Your task to perform on an android device: check google app version Image 0: 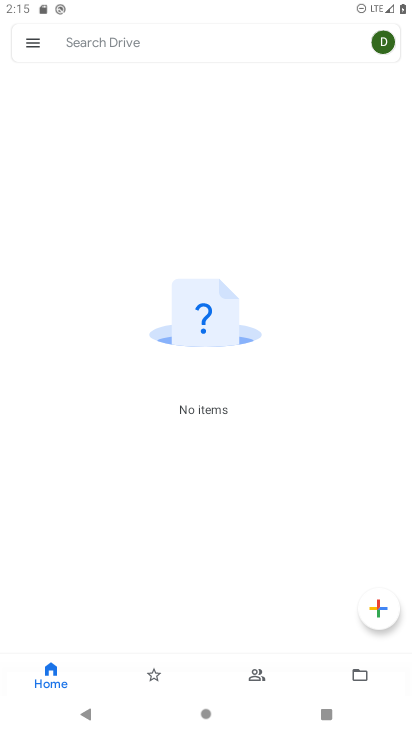
Step 0: press home button
Your task to perform on an android device: check google app version Image 1: 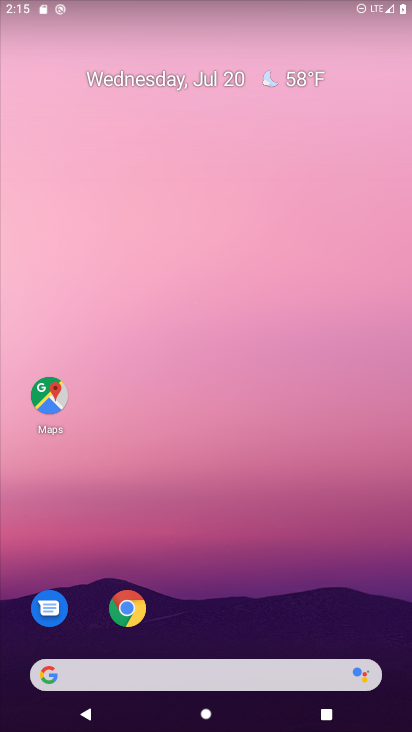
Step 1: drag from (249, 713) to (246, 282)
Your task to perform on an android device: check google app version Image 2: 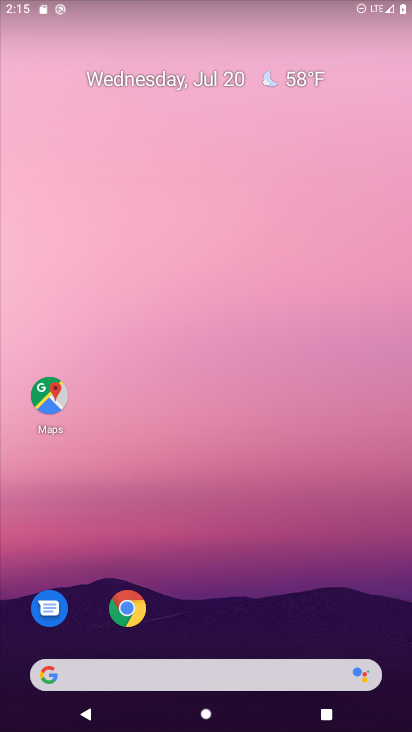
Step 2: drag from (238, 727) to (237, 147)
Your task to perform on an android device: check google app version Image 3: 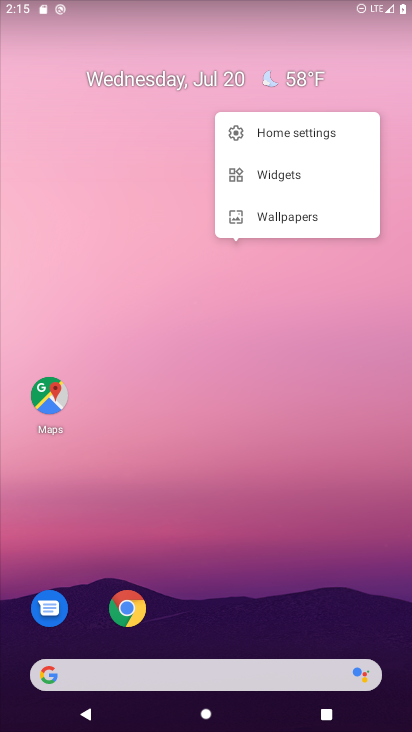
Step 3: click (193, 424)
Your task to perform on an android device: check google app version Image 4: 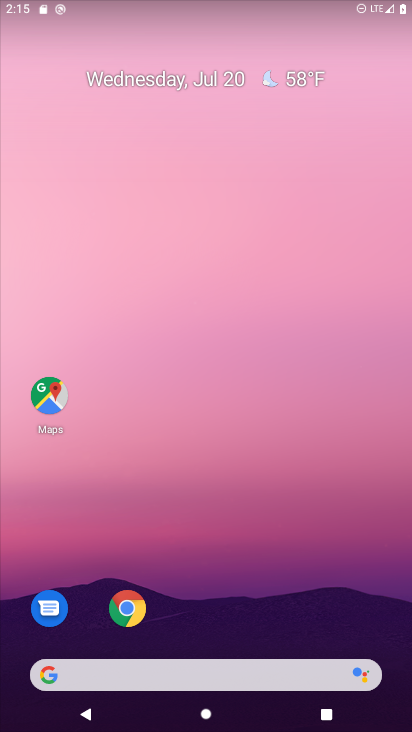
Step 4: drag from (245, 724) to (255, 301)
Your task to perform on an android device: check google app version Image 5: 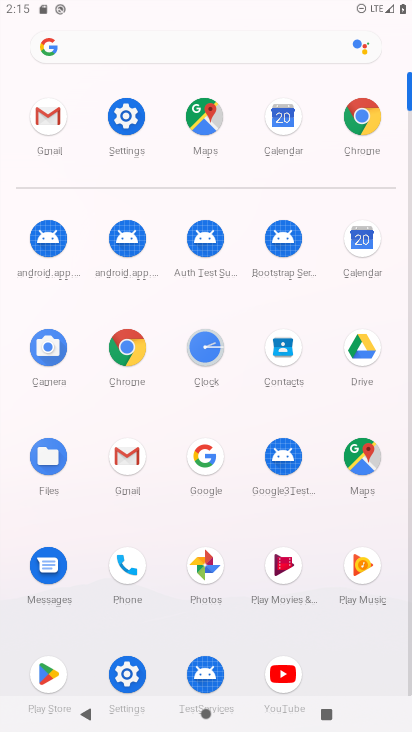
Step 5: click (198, 460)
Your task to perform on an android device: check google app version Image 6: 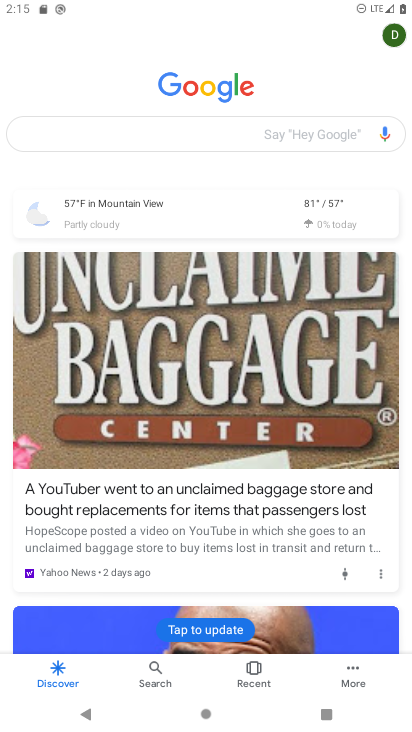
Step 6: click (353, 665)
Your task to perform on an android device: check google app version Image 7: 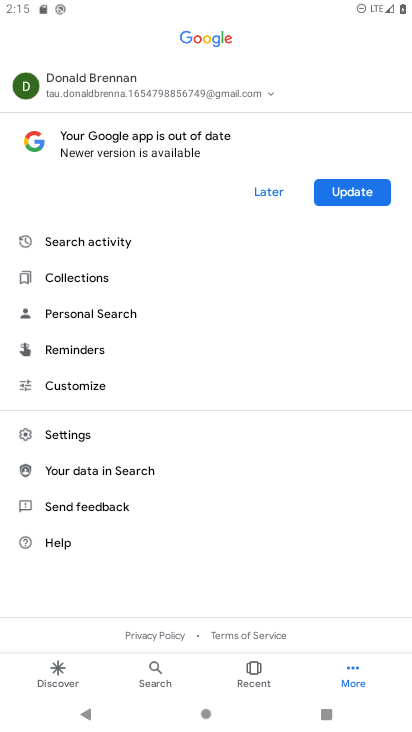
Step 7: click (68, 436)
Your task to perform on an android device: check google app version Image 8: 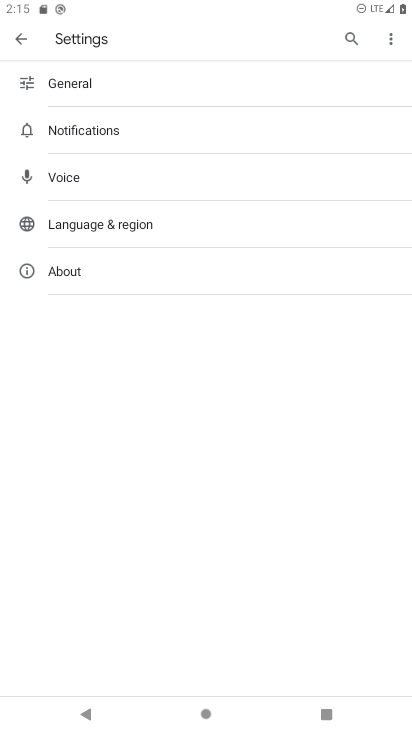
Step 8: click (62, 264)
Your task to perform on an android device: check google app version Image 9: 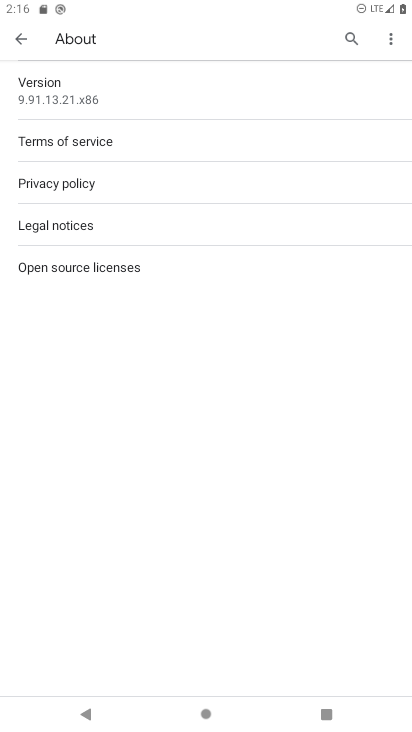
Step 9: click (47, 92)
Your task to perform on an android device: check google app version Image 10: 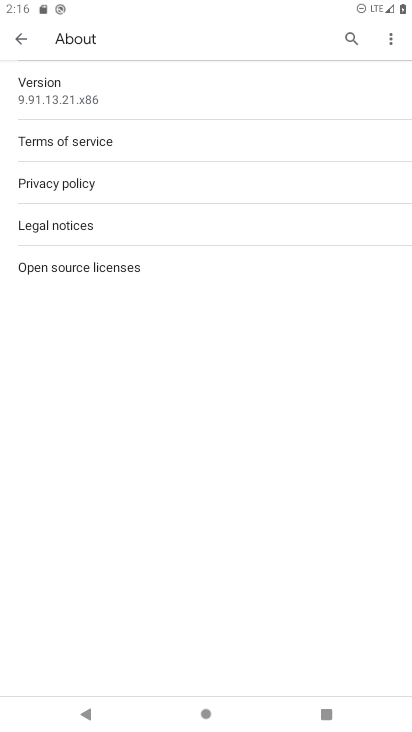
Step 10: task complete